Your task to perform on an android device: make emails show in primary in the gmail app Image 0: 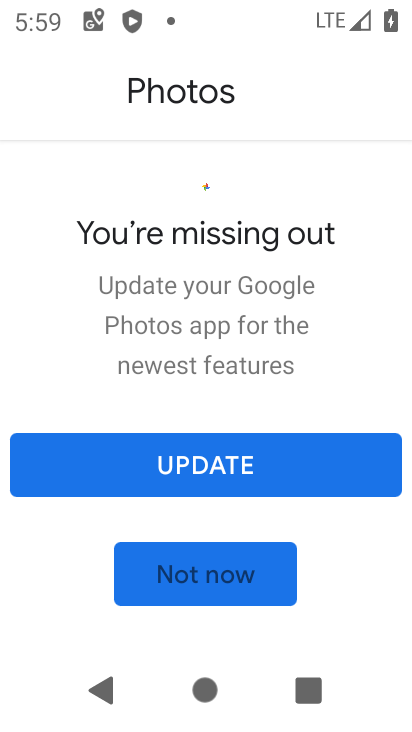
Step 0: press home button
Your task to perform on an android device: make emails show in primary in the gmail app Image 1: 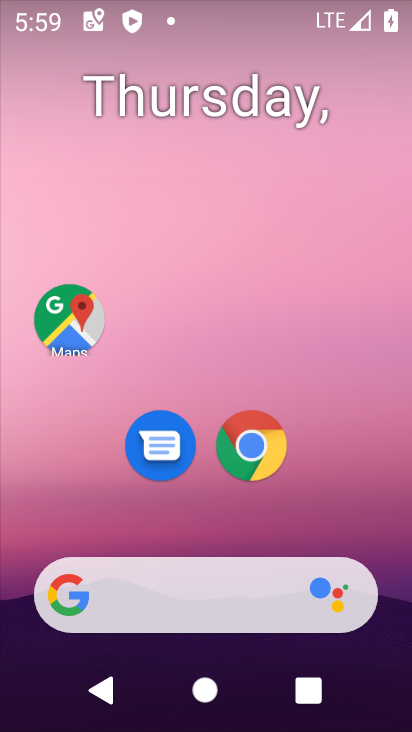
Step 1: drag from (331, 395) to (352, 141)
Your task to perform on an android device: make emails show in primary in the gmail app Image 2: 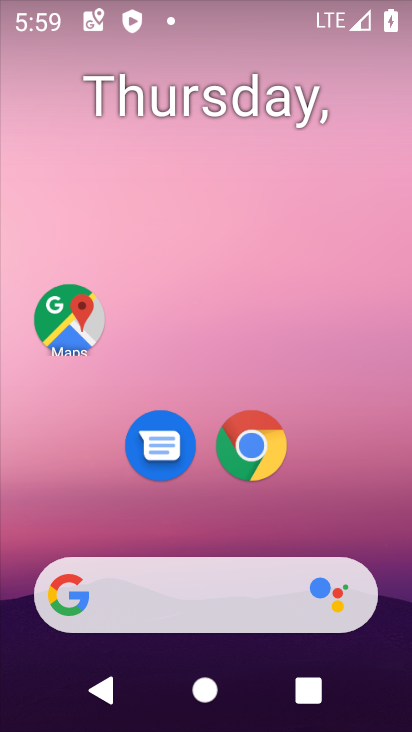
Step 2: drag from (322, 530) to (354, 94)
Your task to perform on an android device: make emails show in primary in the gmail app Image 3: 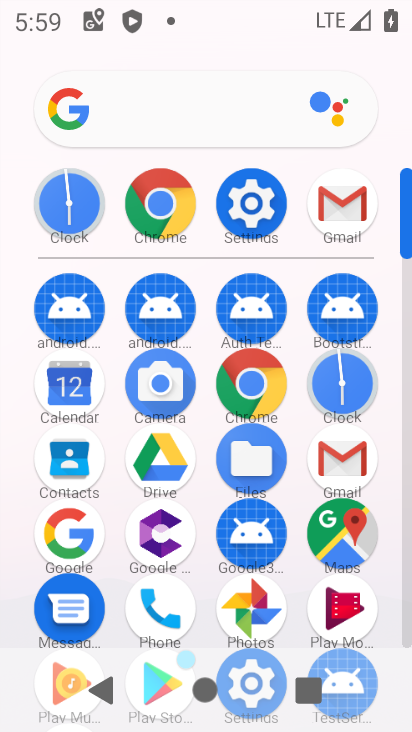
Step 3: click (336, 200)
Your task to perform on an android device: make emails show in primary in the gmail app Image 4: 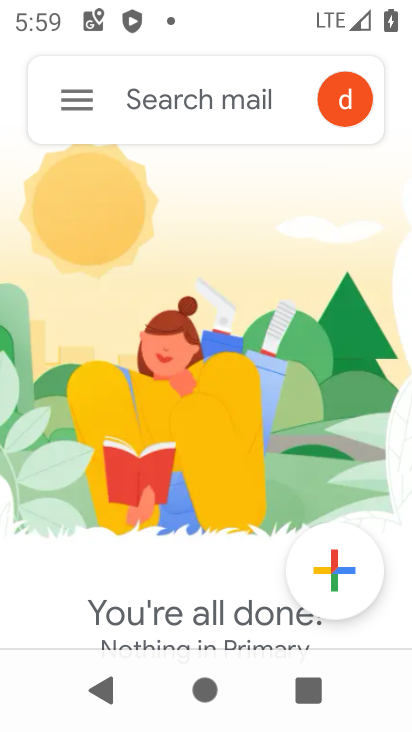
Step 4: task complete